Your task to perform on an android device: Go to Wikipedia Image 0: 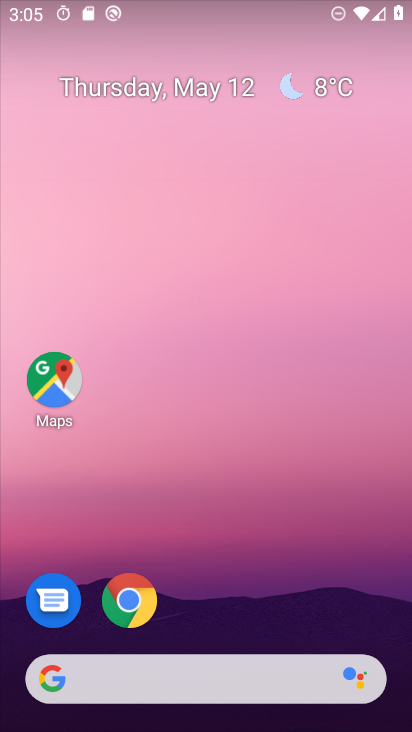
Step 0: drag from (218, 717) to (217, 288)
Your task to perform on an android device: Go to Wikipedia Image 1: 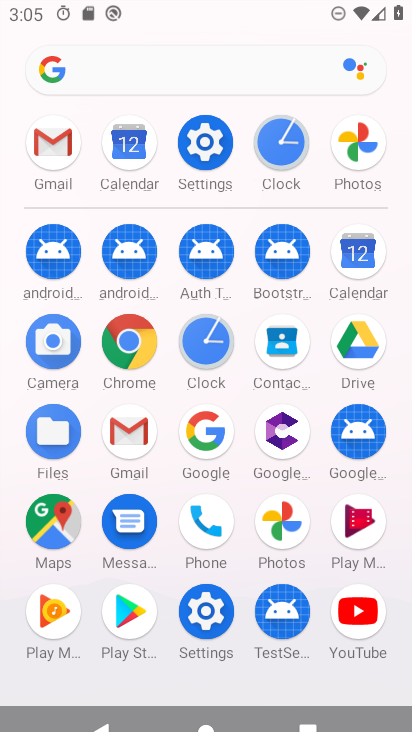
Step 1: click (124, 346)
Your task to perform on an android device: Go to Wikipedia Image 2: 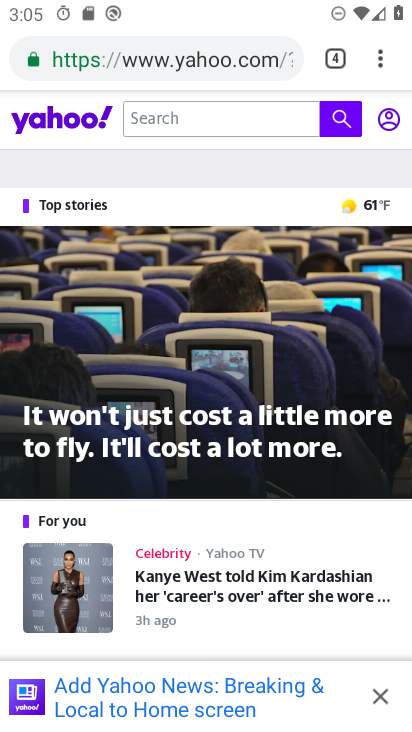
Step 2: click (379, 64)
Your task to perform on an android device: Go to Wikipedia Image 3: 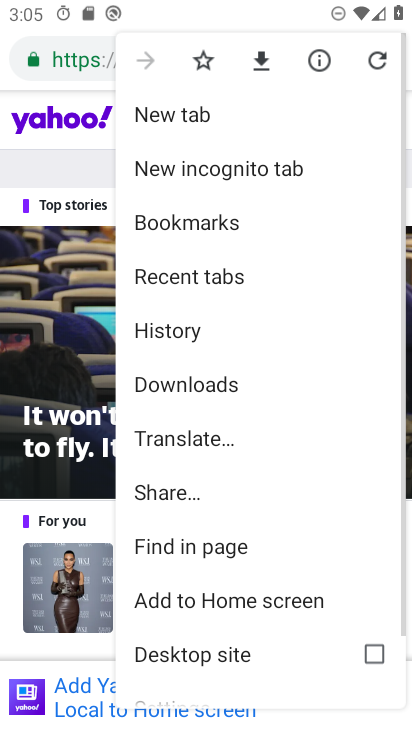
Step 3: click (184, 111)
Your task to perform on an android device: Go to Wikipedia Image 4: 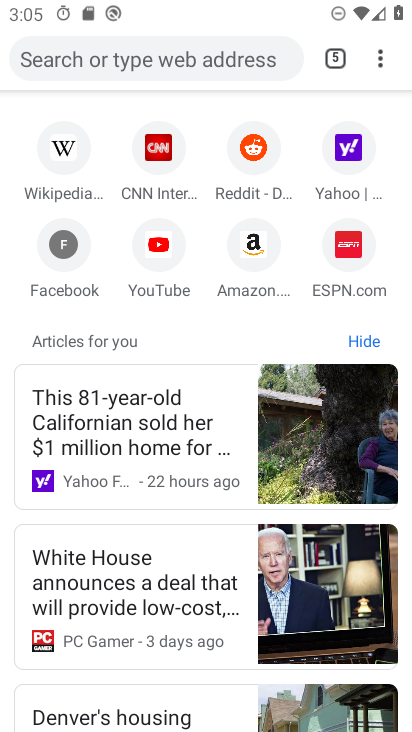
Step 4: click (61, 168)
Your task to perform on an android device: Go to Wikipedia Image 5: 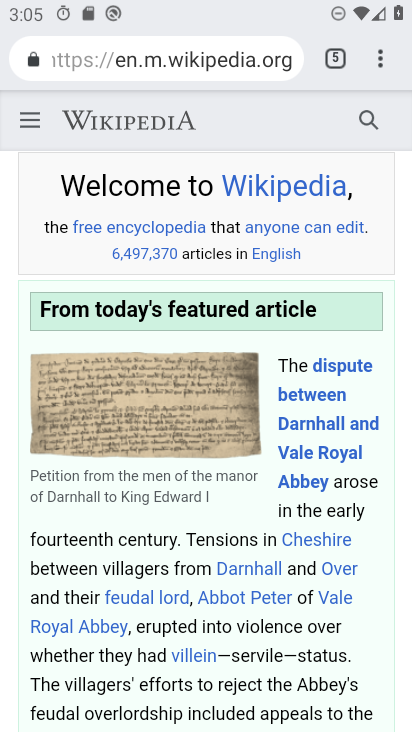
Step 5: task complete